Your task to perform on an android device: Open calendar and show me the third week of next month Image 0: 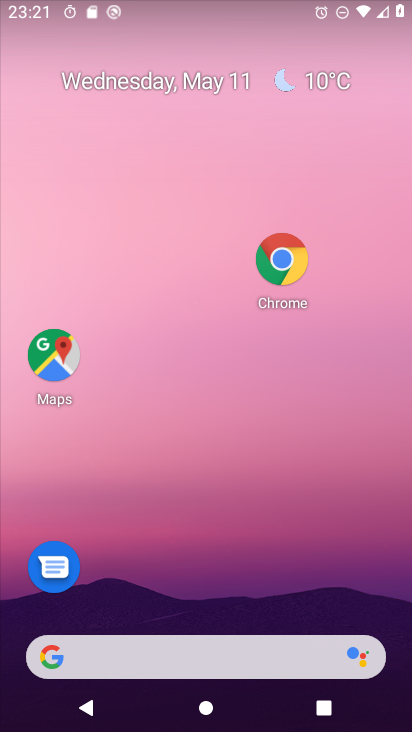
Step 0: drag from (150, 662) to (263, 286)
Your task to perform on an android device: Open calendar and show me the third week of next month Image 1: 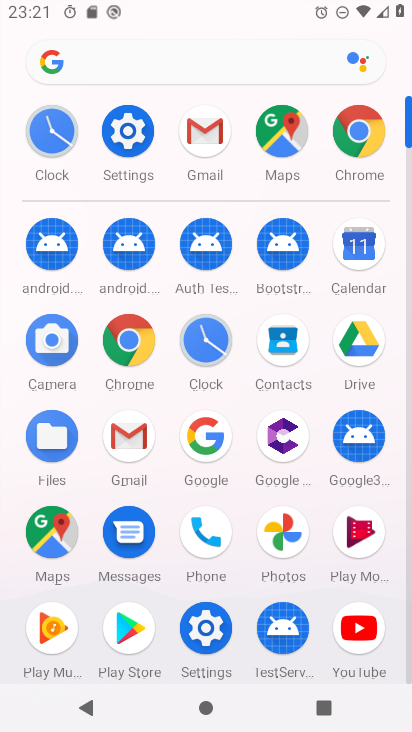
Step 1: click (363, 259)
Your task to perform on an android device: Open calendar and show me the third week of next month Image 2: 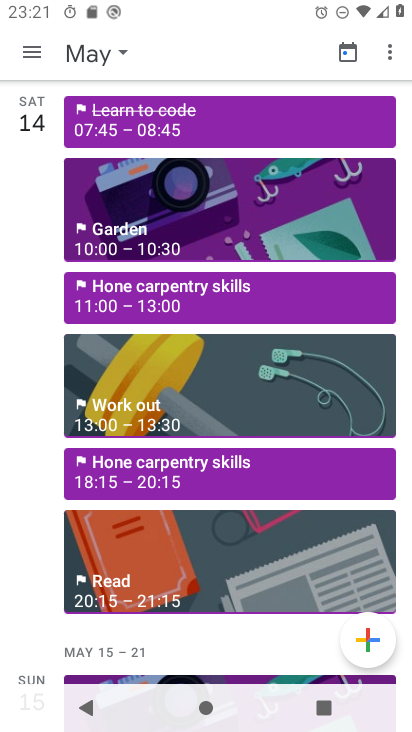
Step 2: click (84, 52)
Your task to perform on an android device: Open calendar and show me the third week of next month Image 3: 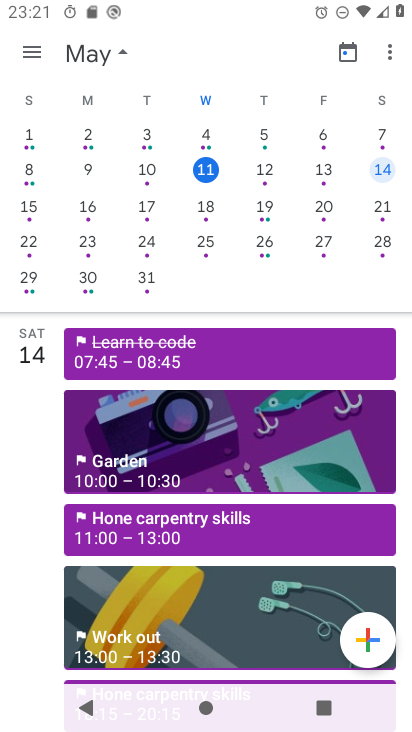
Step 3: drag from (365, 212) to (41, 244)
Your task to perform on an android device: Open calendar and show me the third week of next month Image 4: 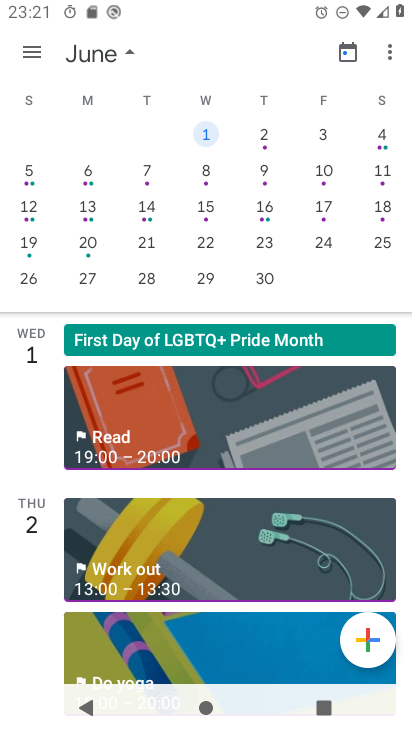
Step 4: click (30, 212)
Your task to perform on an android device: Open calendar and show me the third week of next month Image 5: 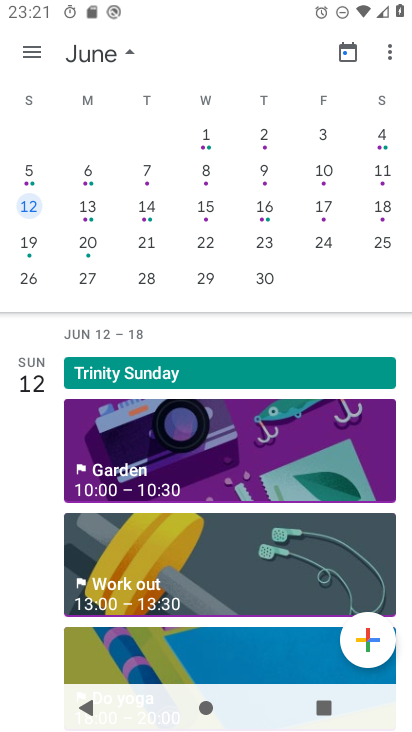
Step 5: click (41, 46)
Your task to perform on an android device: Open calendar and show me the third week of next month Image 6: 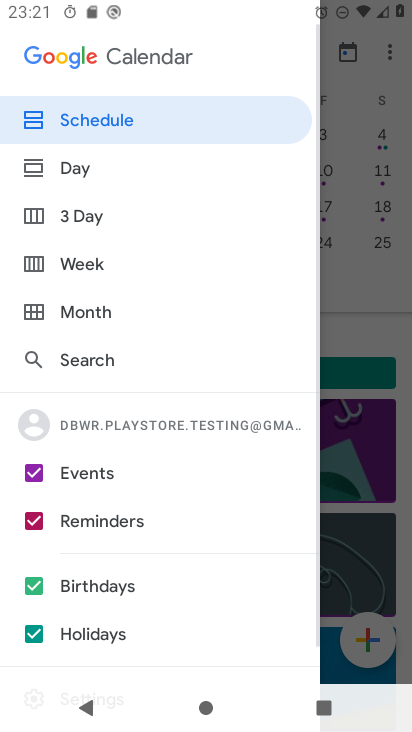
Step 6: click (80, 272)
Your task to perform on an android device: Open calendar and show me the third week of next month Image 7: 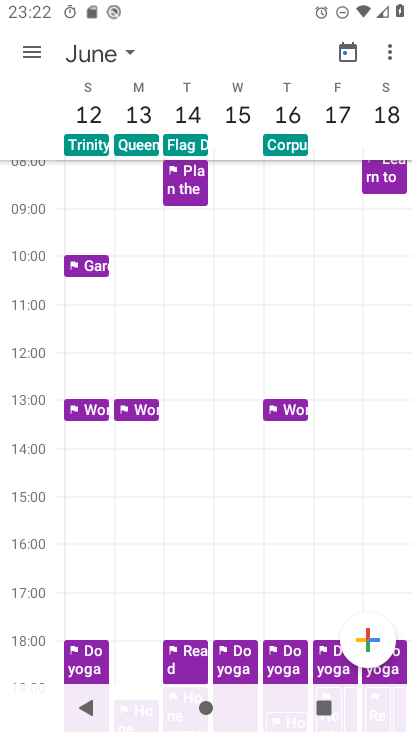
Step 7: task complete